Your task to perform on an android device: read, delete, or share a saved page in the chrome app Image 0: 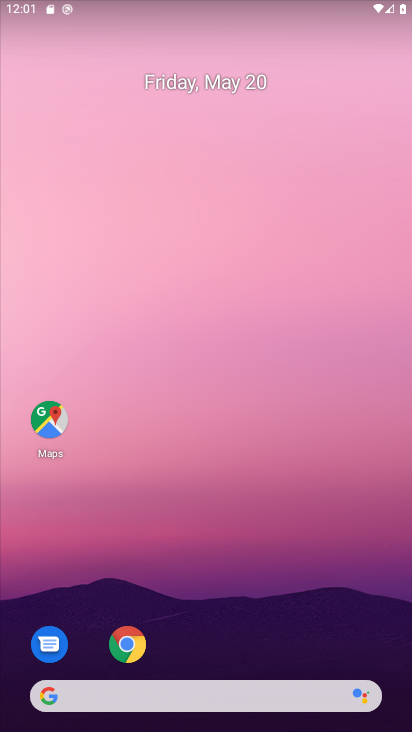
Step 0: click (147, 651)
Your task to perform on an android device: read, delete, or share a saved page in the chrome app Image 1: 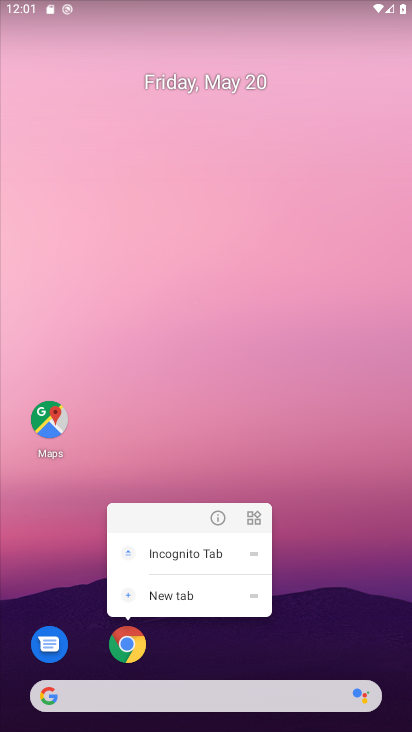
Step 1: click (117, 651)
Your task to perform on an android device: read, delete, or share a saved page in the chrome app Image 2: 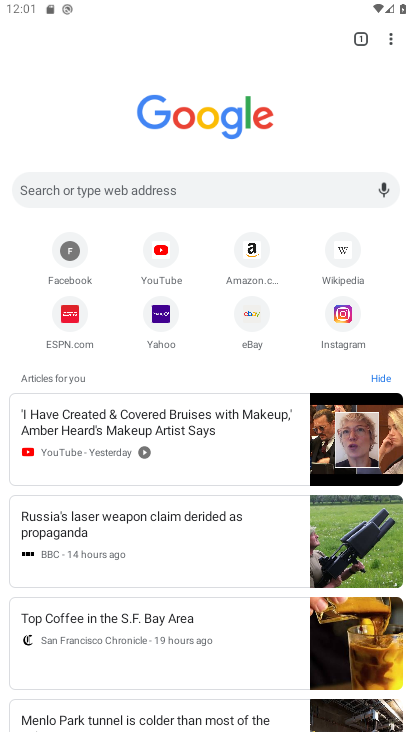
Step 2: click (390, 39)
Your task to perform on an android device: read, delete, or share a saved page in the chrome app Image 3: 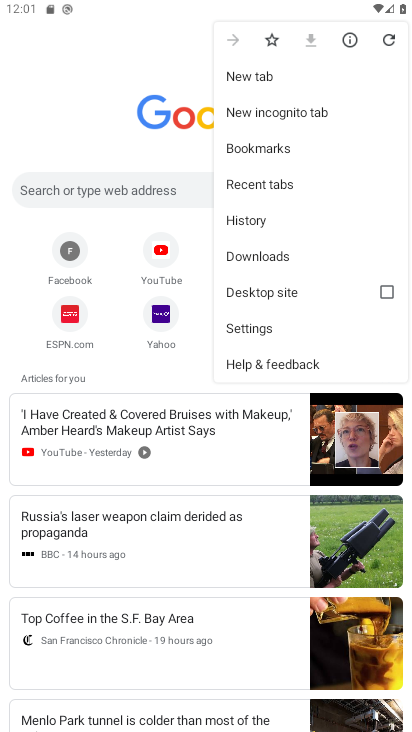
Step 3: click (266, 262)
Your task to perform on an android device: read, delete, or share a saved page in the chrome app Image 4: 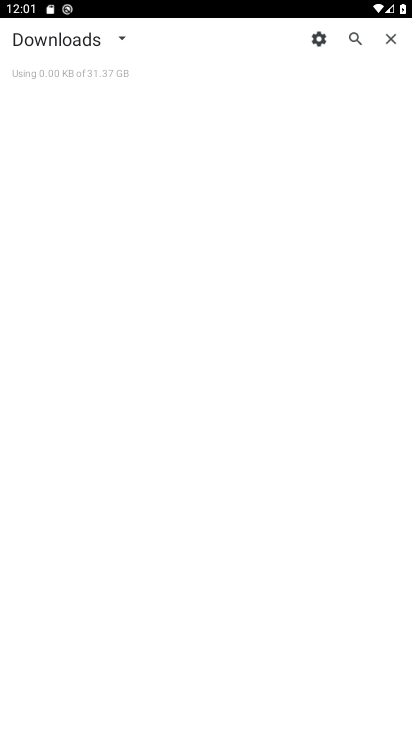
Step 4: click (117, 42)
Your task to perform on an android device: read, delete, or share a saved page in the chrome app Image 5: 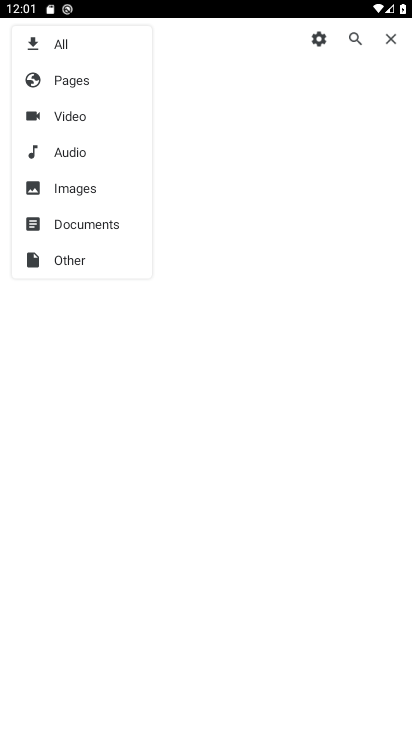
Step 5: click (82, 77)
Your task to perform on an android device: read, delete, or share a saved page in the chrome app Image 6: 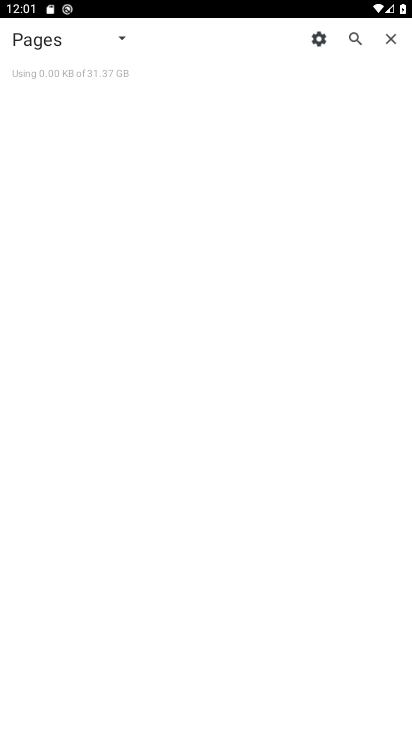
Step 6: task complete